Your task to perform on an android device: Go to wifi settings Image 0: 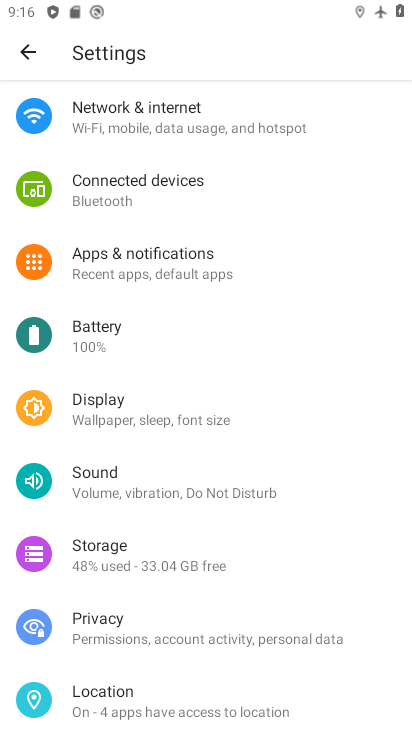
Step 0: click (136, 119)
Your task to perform on an android device: Go to wifi settings Image 1: 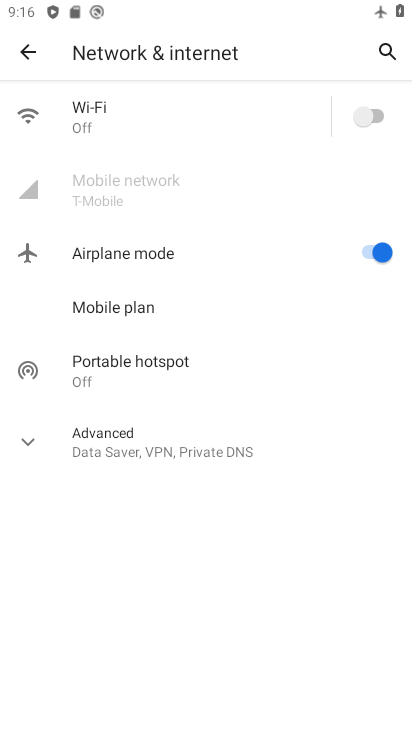
Step 1: click (90, 116)
Your task to perform on an android device: Go to wifi settings Image 2: 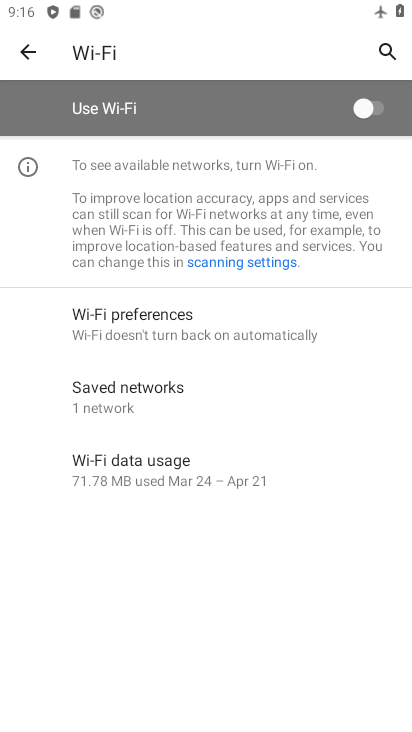
Step 2: task complete